Your task to perform on an android device: Show me popular videos on Youtube Image 0: 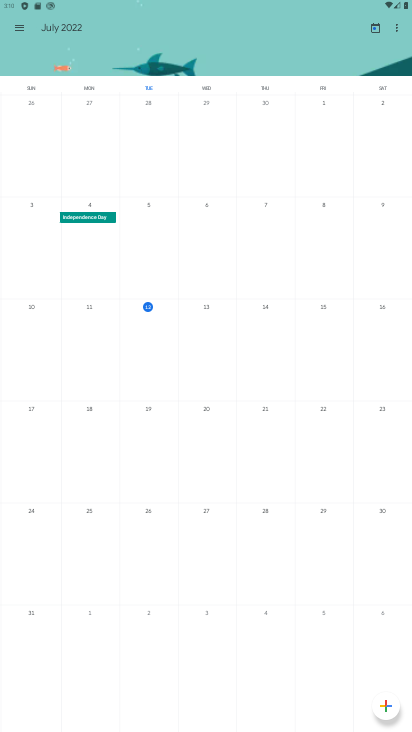
Step 0: press home button
Your task to perform on an android device: Show me popular videos on Youtube Image 1: 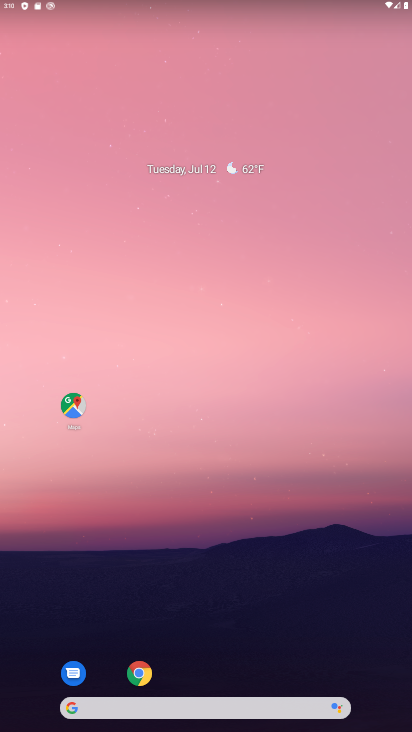
Step 1: drag from (212, 675) to (258, 112)
Your task to perform on an android device: Show me popular videos on Youtube Image 2: 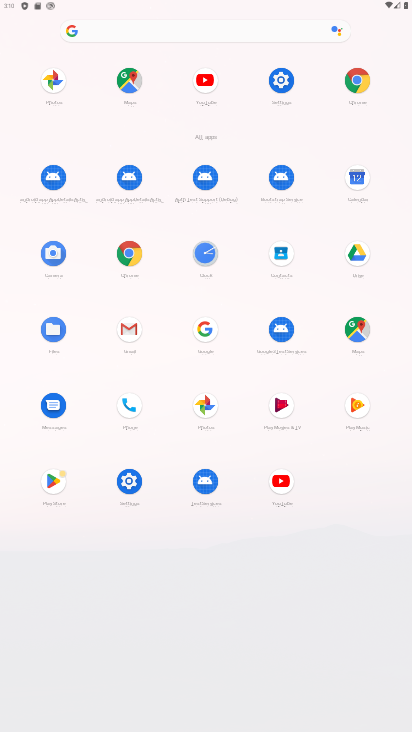
Step 2: click (281, 491)
Your task to perform on an android device: Show me popular videos on Youtube Image 3: 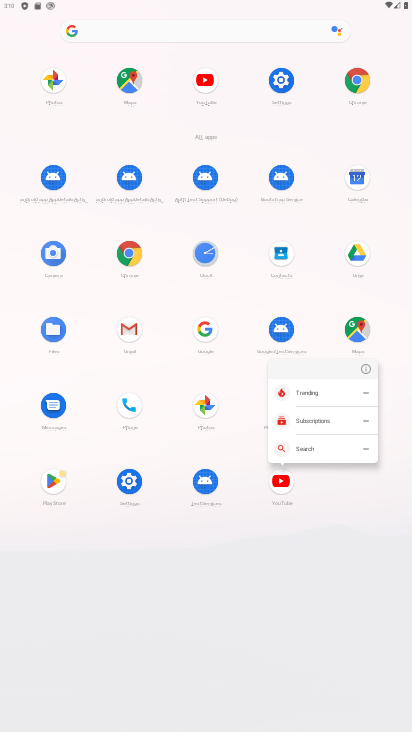
Step 3: click (283, 479)
Your task to perform on an android device: Show me popular videos on Youtube Image 4: 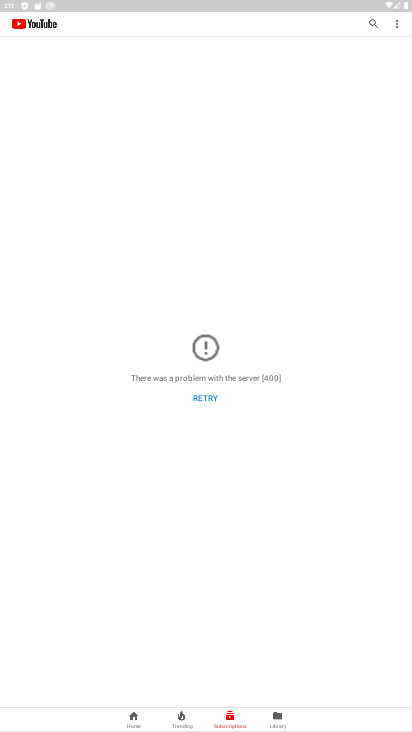
Step 4: task complete